Your task to perform on an android device: Open the phone app and click the voicemail tab. Image 0: 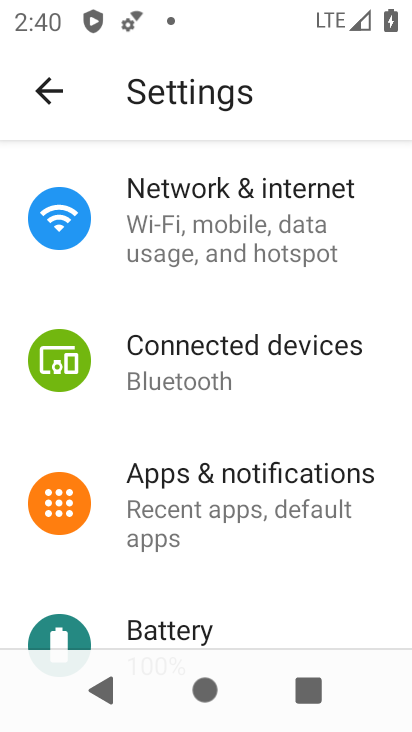
Step 0: press home button
Your task to perform on an android device: Open the phone app and click the voicemail tab. Image 1: 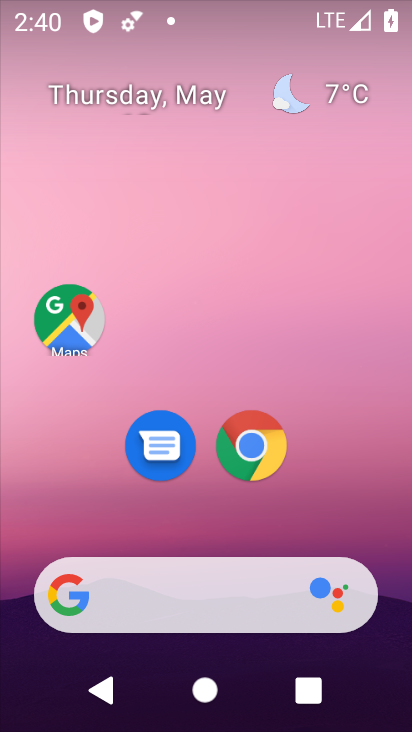
Step 1: drag from (346, 535) to (297, 18)
Your task to perform on an android device: Open the phone app and click the voicemail tab. Image 2: 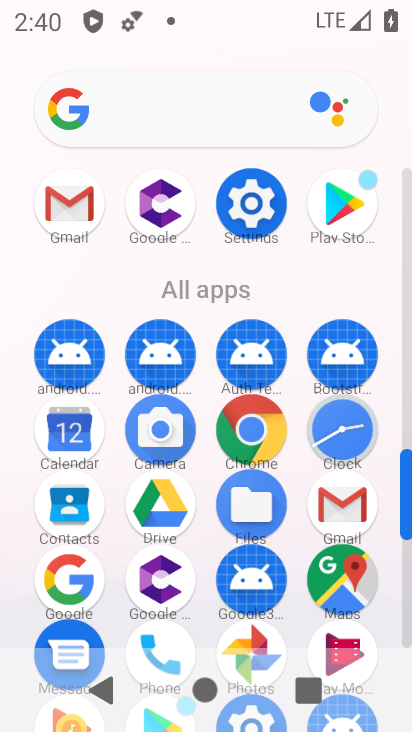
Step 2: click (153, 642)
Your task to perform on an android device: Open the phone app and click the voicemail tab. Image 3: 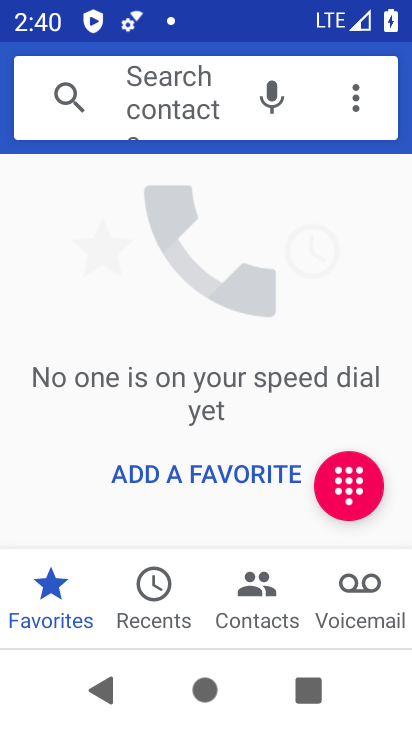
Step 3: click (346, 598)
Your task to perform on an android device: Open the phone app and click the voicemail tab. Image 4: 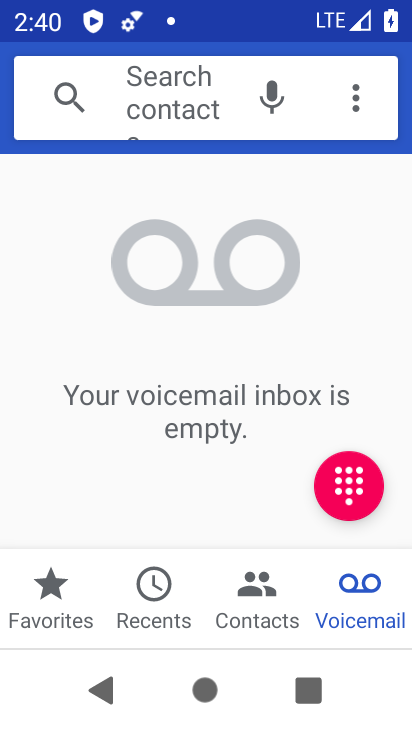
Step 4: task complete